Your task to perform on an android device: see tabs open on other devices in the chrome app Image 0: 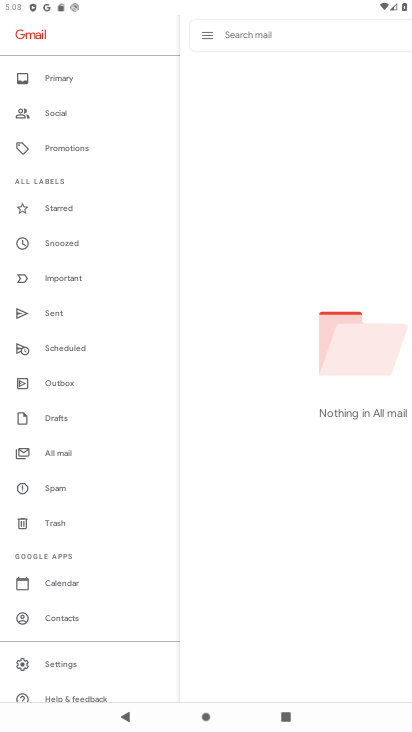
Step 0: press home button
Your task to perform on an android device: see tabs open on other devices in the chrome app Image 1: 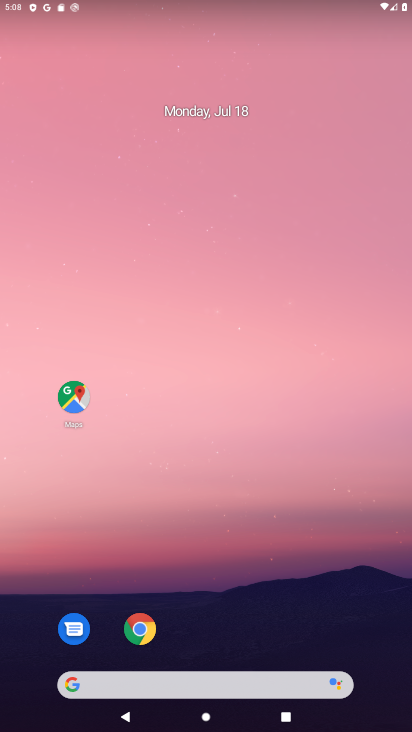
Step 1: drag from (281, 573) to (275, 84)
Your task to perform on an android device: see tabs open on other devices in the chrome app Image 2: 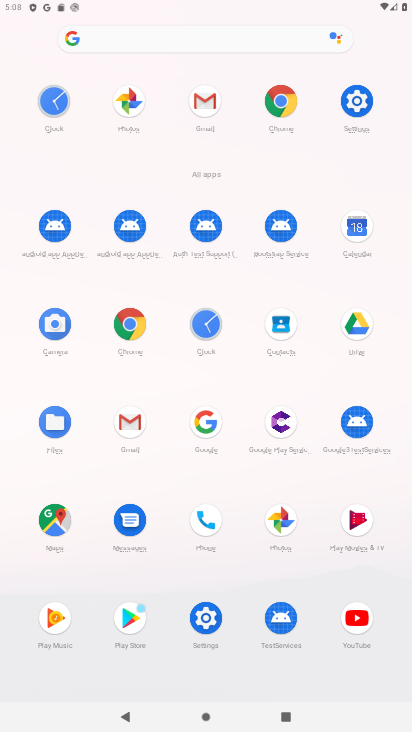
Step 2: click (130, 319)
Your task to perform on an android device: see tabs open on other devices in the chrome app Image 3: 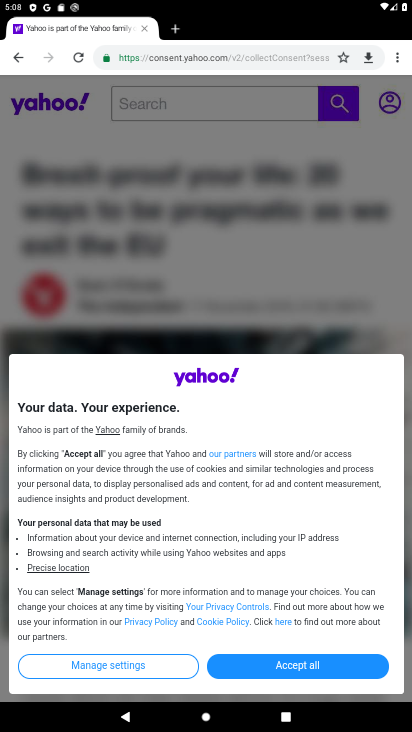
Step 3: task complete